Your task to perform on an android device: Open calendar and show me the third week of next month Image 0: 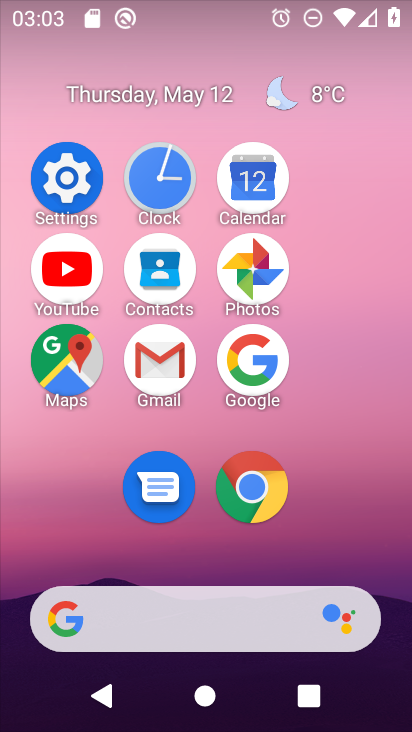
Step 0: click (262, 170)
Your task to perform on an android device: Open calendar and show me the third week of next month Image 1: 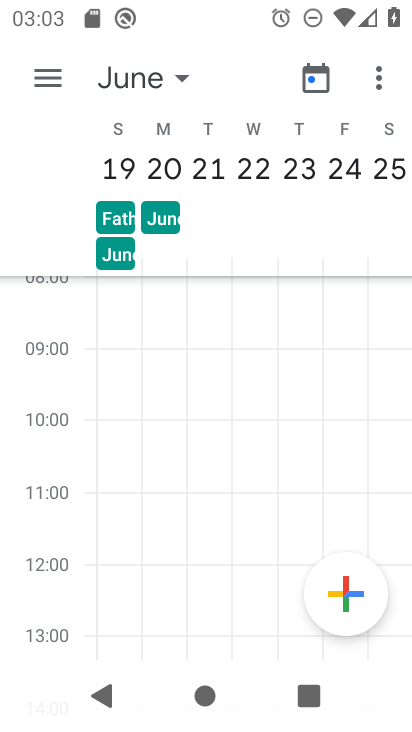
Step 1: task complete